Your task to perform on an android device: empty trash in the gmail app Image 0: 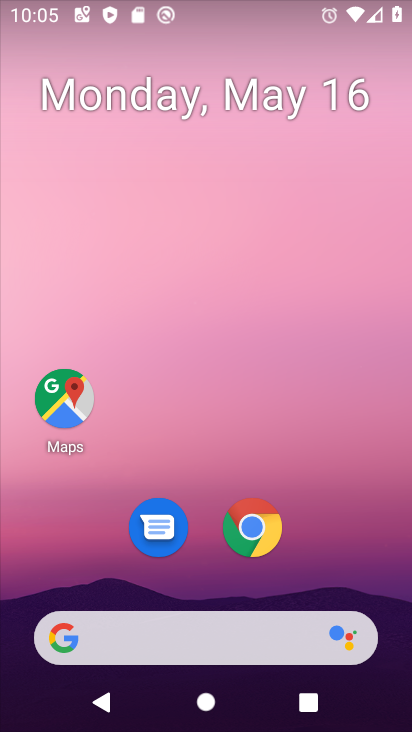
Step 0: drag from (371, 601) to (370, 38)
Your task to perform on an android device: empty trash in the gmail app Image 1: 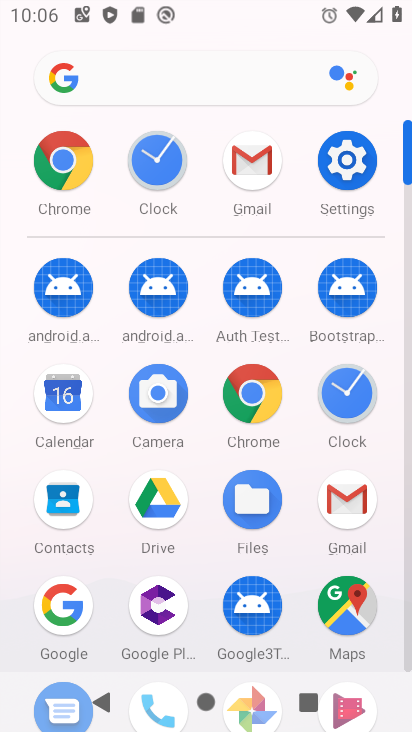
Step 1: click (256, 176)
Your task to perform on an android device: empty trash in the gmail app Image 2: 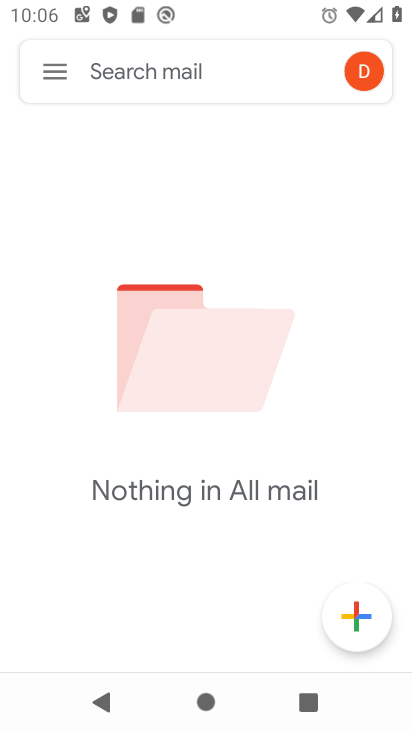
Step 2: click (45, 75)
Your task to perform on an android device: empty trash in the gmail app Image 3: 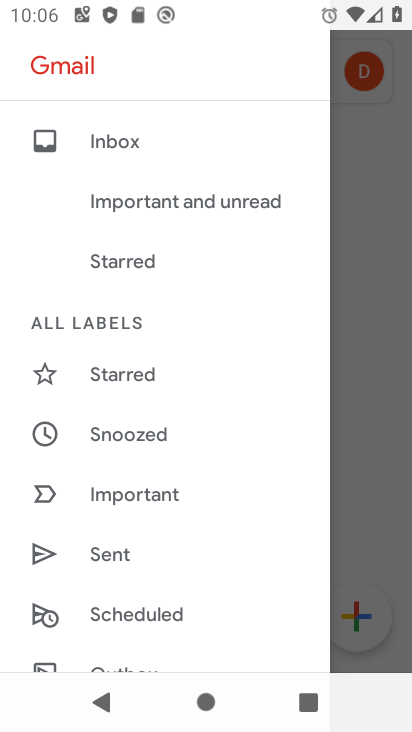
Step 3: drag from (202, 540) to (175, 214)
Your task to perform on an android device: empty trash in the gmail app Image 4: 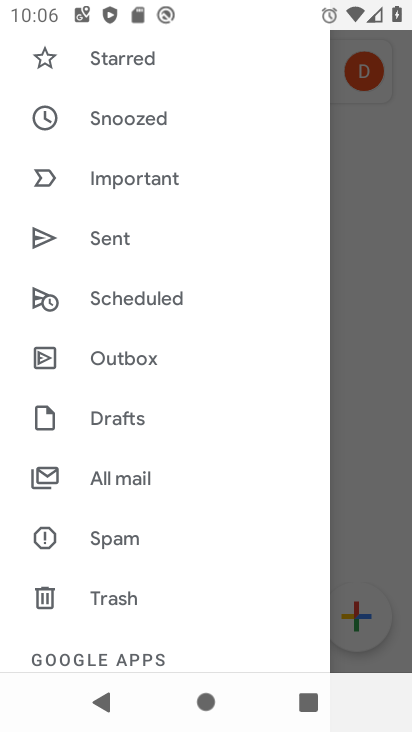
Step 4: click (107, 595)
Your task to perform on an android device: empty trash in the gmail app Image 5: 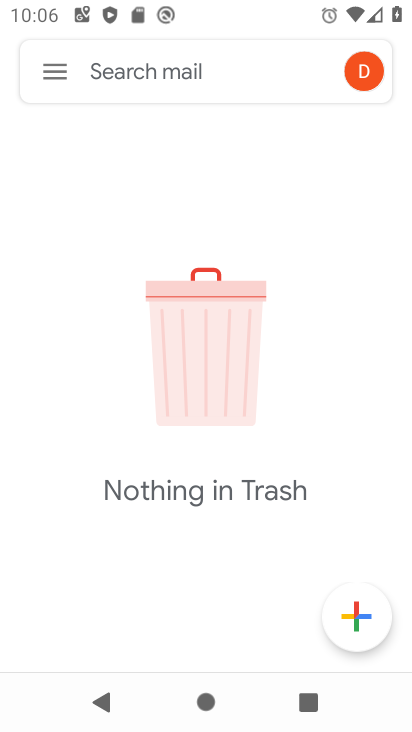
Step 5: task complete